Your task to perform on an android device: add a contact Image 0: 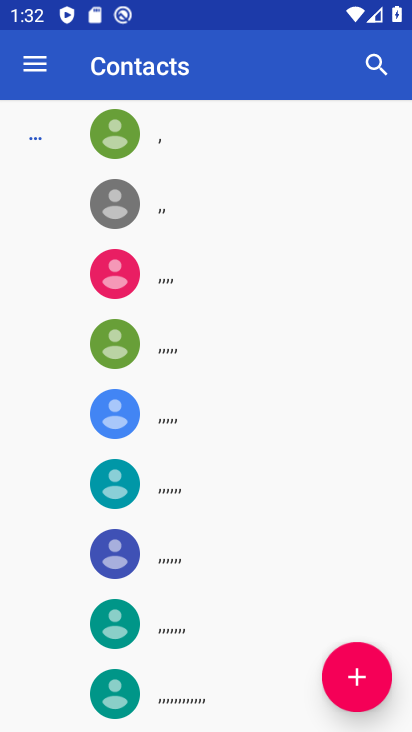
Step 0: click (367, 673)
Your task to perform on an android device: add a contact Image 1: 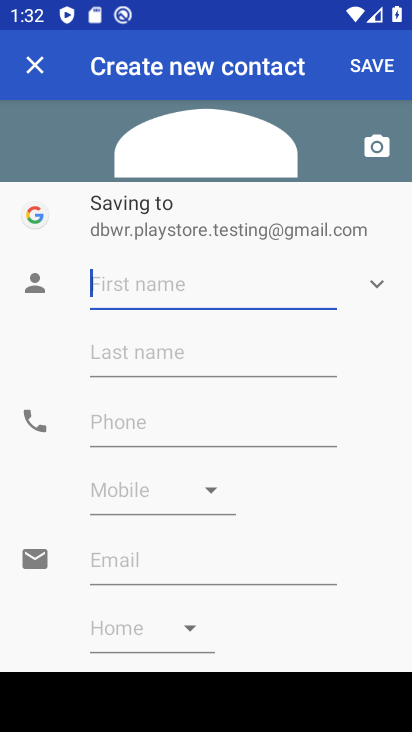
Step 1: click (130, 275)
Your task to perform on an android device: add a contact Image 2: 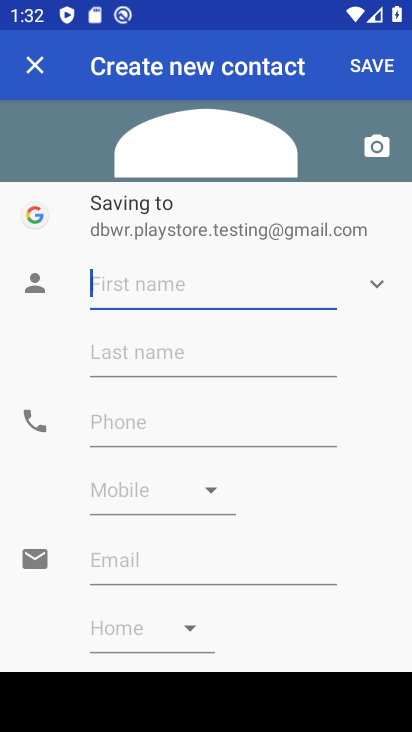
Step 2: type "jjhbh"
Your task to perform on an android device: add a contact Image 3: 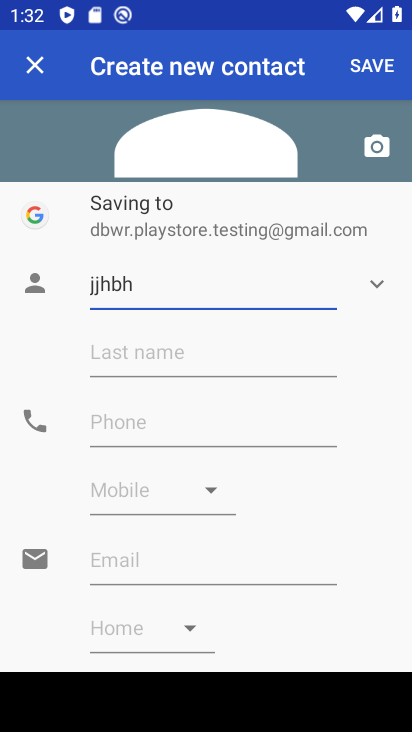
Step 3: click (120, 421)
Your task to perform on an android device: add a contact Image 4: 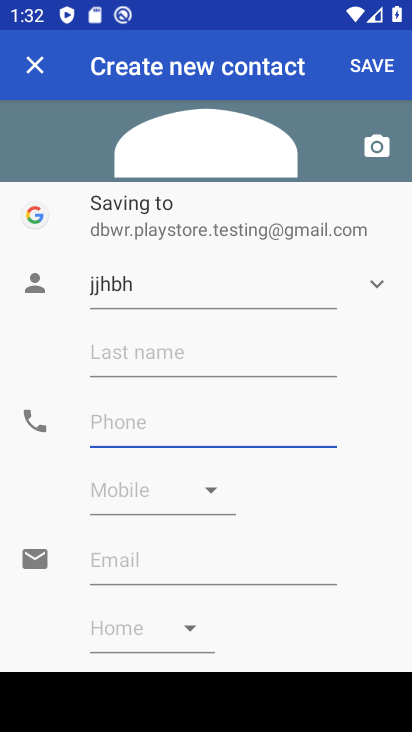
Step 4: type "87878"
Your task to perform on an android device: add a contact Image 5: 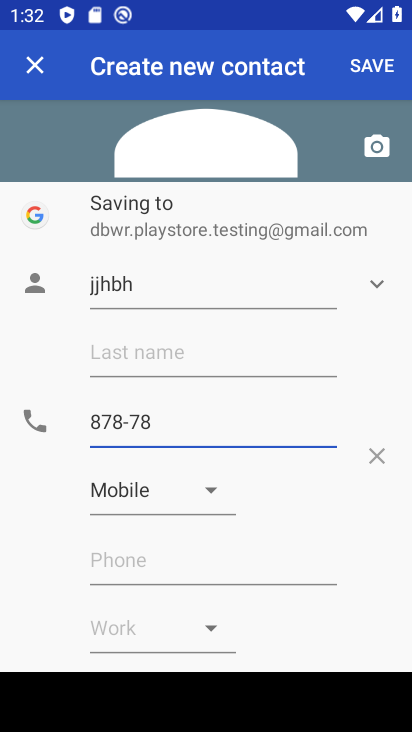
Step 5: click (370, 60)
Your task to perform on an android device: add a contact Image 6: 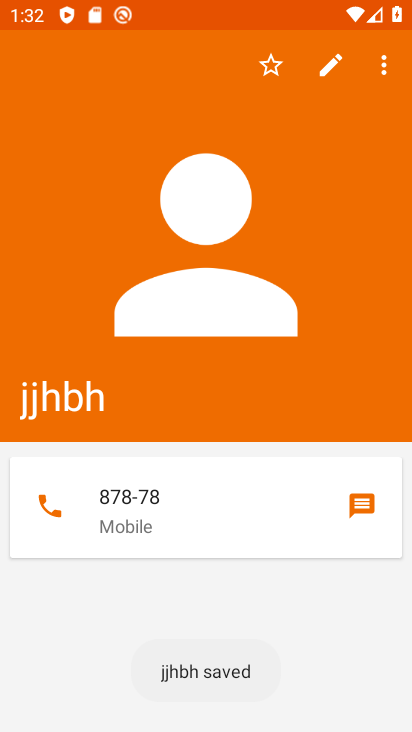
Step 6: task complete